Your task to perform on an android device: add a label to a message in the gmail app Image 0: 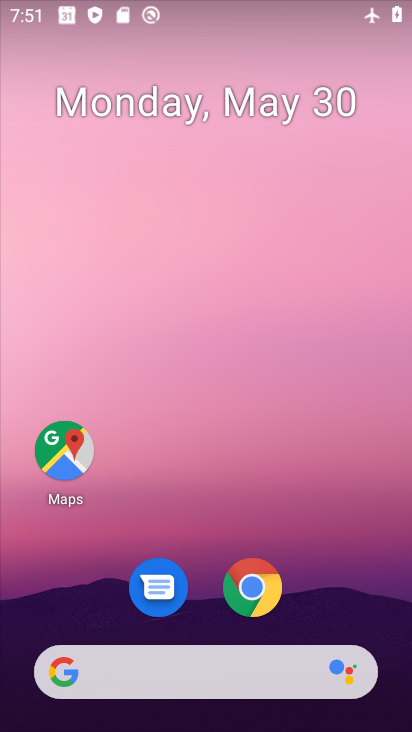
Step 0: drag from (354, 560) to (239, 36)
Your task to perform on an android device: add a label to a message in the gmail app Image 1: 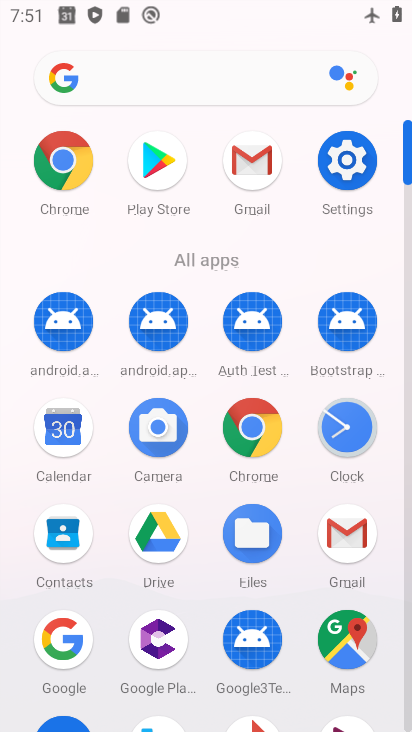
Step 1: click (250, 153)
Your task to perform on an android device: add a label to a message in the gmail app Image 2: 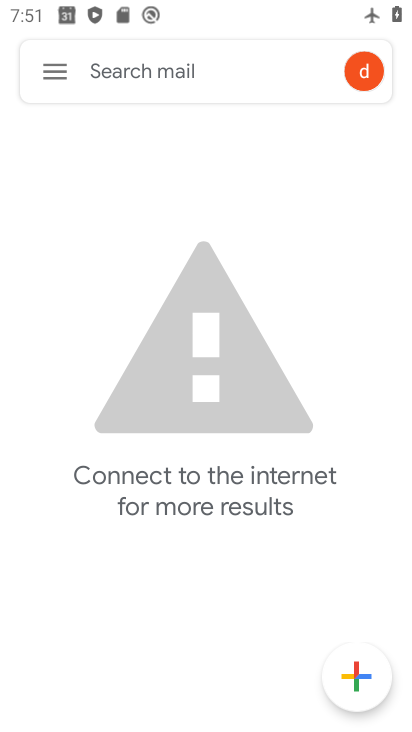
Step 2: click (69, 64)
Your task to perform on an android device: add a label to a message in the gmail app Image 3: 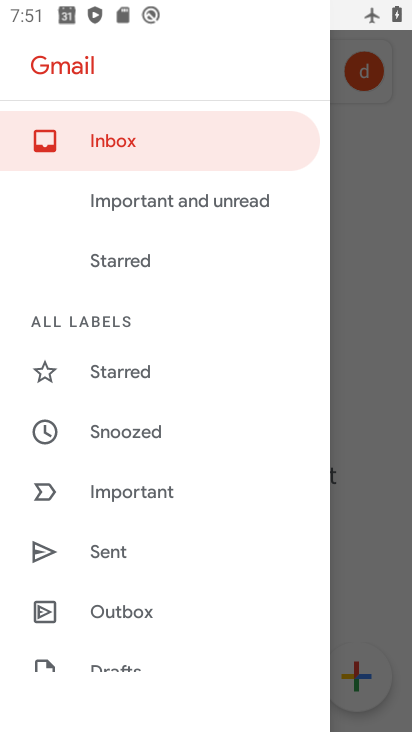
Step 3: click (141, 362)
Your task to perform on an android device: add a label to a message in the gmail app Image 4: 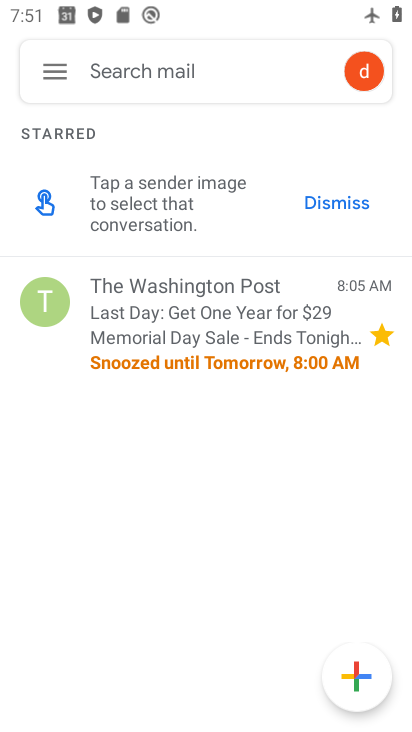
Step 4: click (223, 311)
Your task to perform on an android device: add a label to a message in the gmail app Image 5: 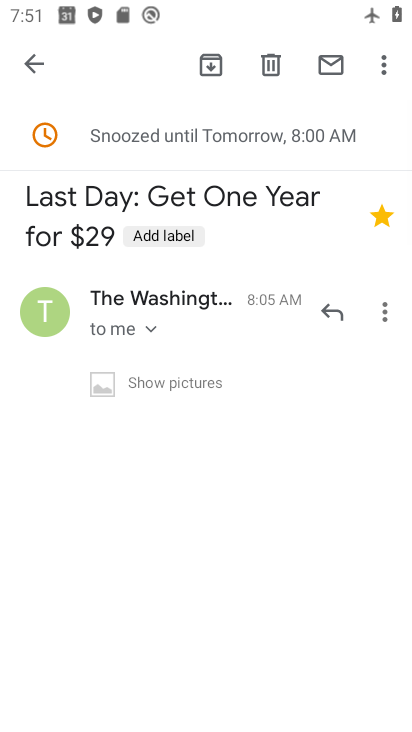
Step 5: click (151, 236)
Your task to perform on an android device: add a label to a message in the gmail app Image 6: 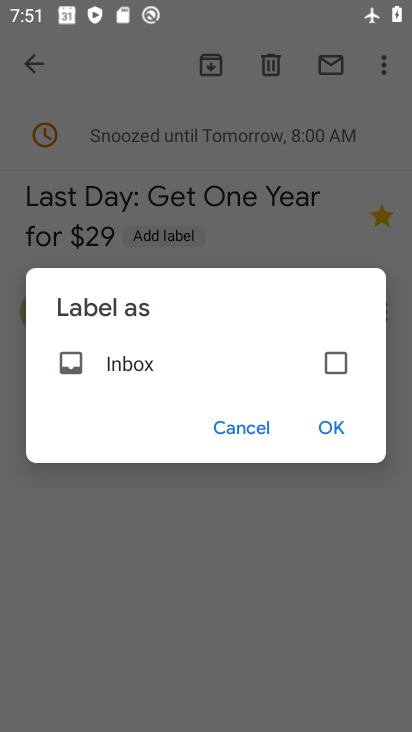
Step 6: click (346, 355)
Your task to perform on an android device: add a label to a message in the gmail app Image 7: 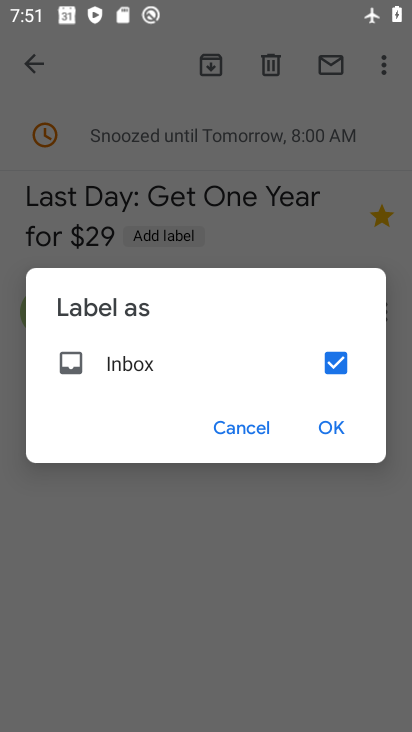
Step 7: click (339, 432)
Your task to perform on an android device: add a label to a message in the gmail app Image 8: 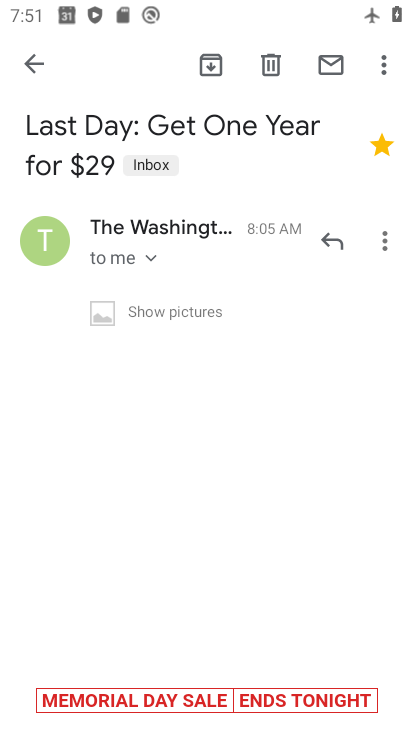
Step 8: task complete